Your task to perform on an android device: add a label to a message in the gmail app Image 0: 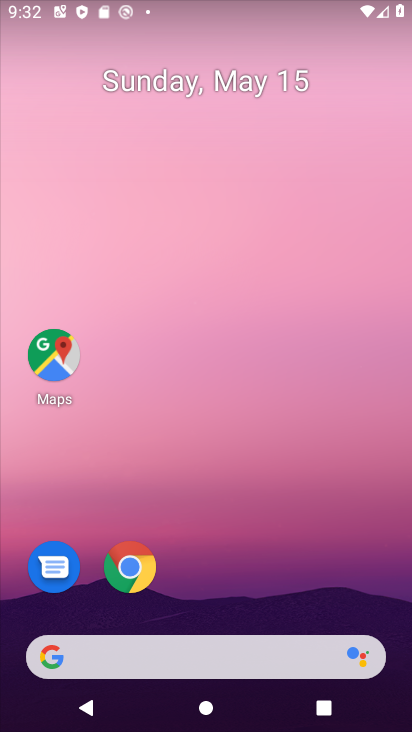
Step 0: drag from (280, 591) to (229, 164)
Your task to perform on an android device: add a label to a message in the gmail app Image 1: 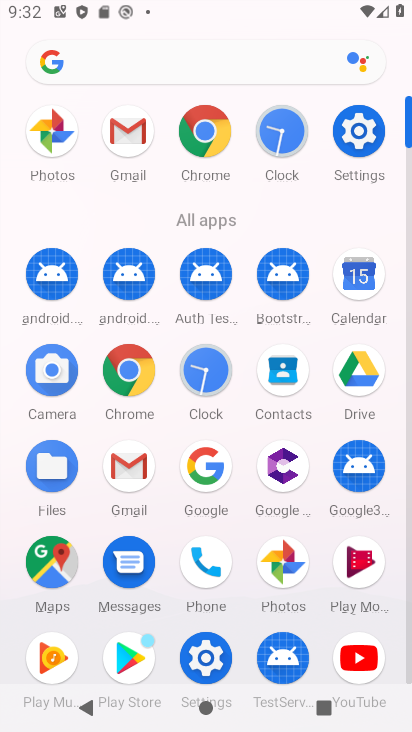
Step 1: click (139, 466)
Your task to perform on an android device: add a label to a message in the gmail app Image 2: 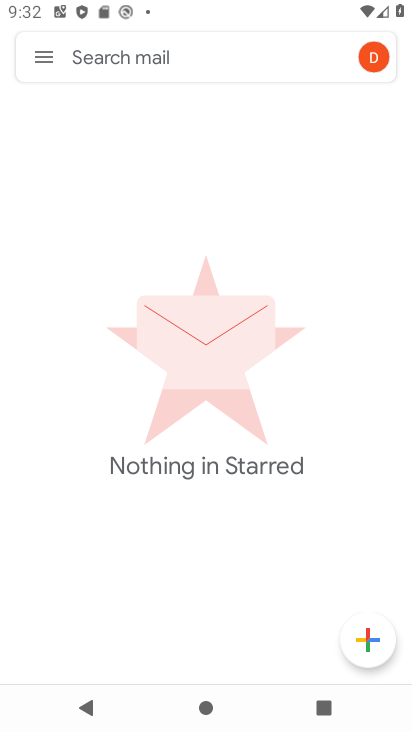
Step 2: click (37, 59)
Your task to perform on an android device: add a label to a message in the gmail app Image 3: 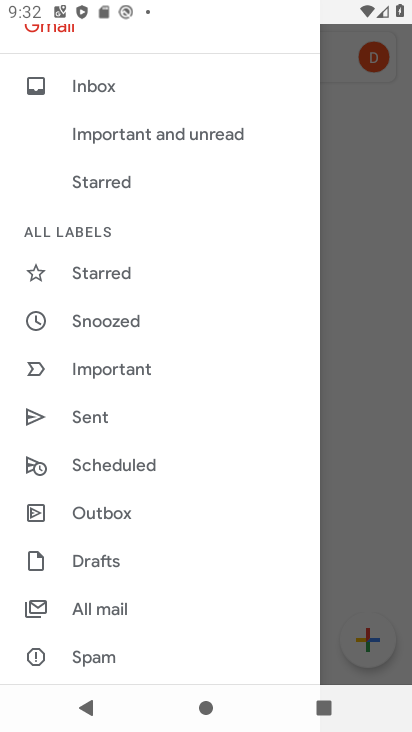
Step 3: drag from (164, 655) to (137, 331)
Your task to perform on an android device: add a label to a message in the gmail app Image 4: 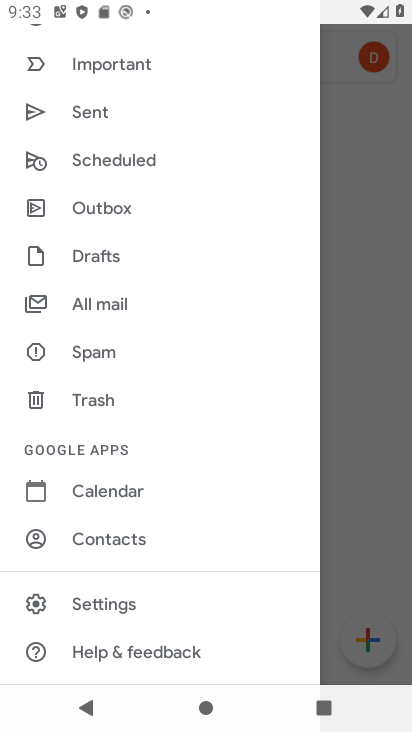
Step 4: click (123, 305)
Your task to perform on an android device: add a label to a message in the gmail app Image 5: 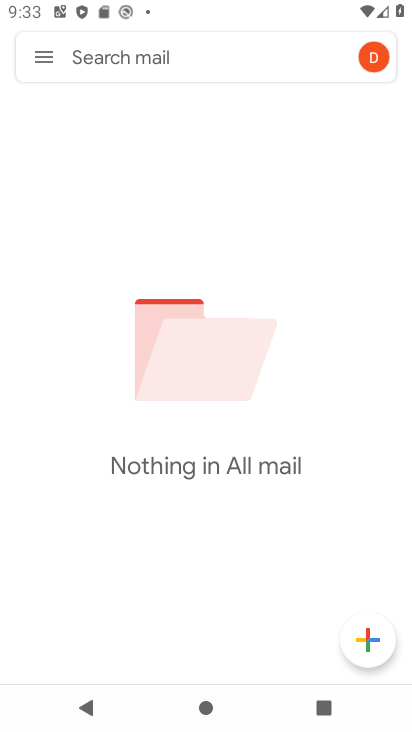
Step 5: task complete